Your task to perform on an android device: Show me productivity apps on the Play Store Image 0: 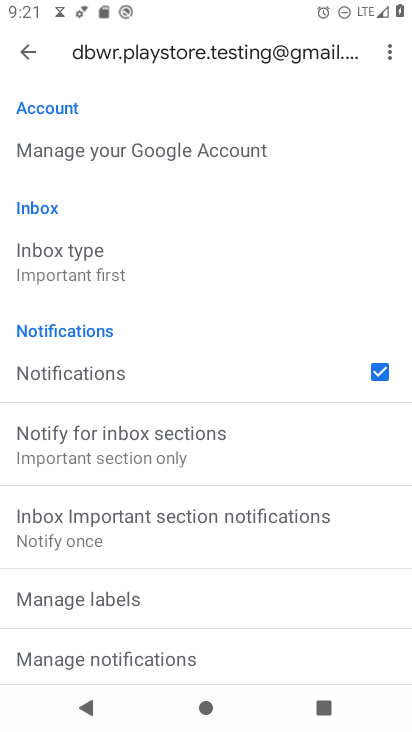
Step 0: press home button
Your task to perform on an android device: Show me productivity apps on the Play Store Image 1: 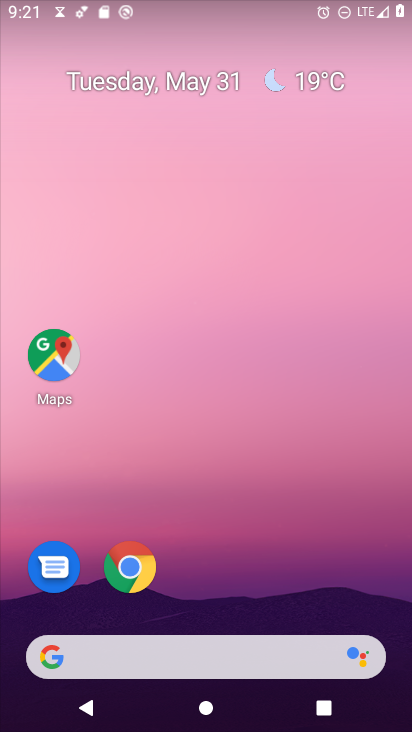
Step 1: drag from (173, 637) to (213, 186)
Your task to perform on an android device: Show me productivity apps on the Play Store Image 2: 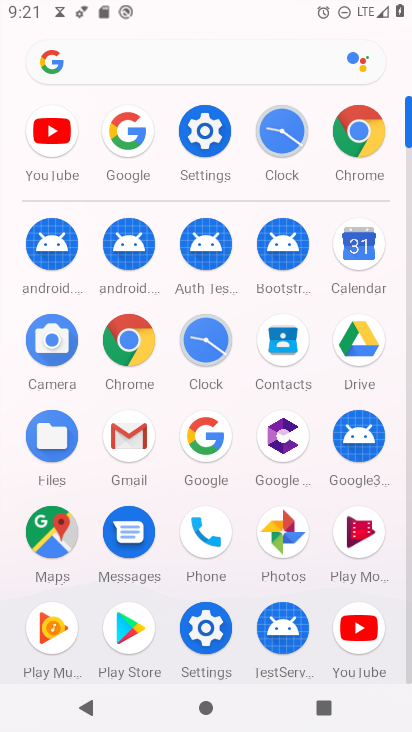
Step 2: click (117, 628)
Your task to perform on an android device: Show me productivity apps on the Play Store Image 3: 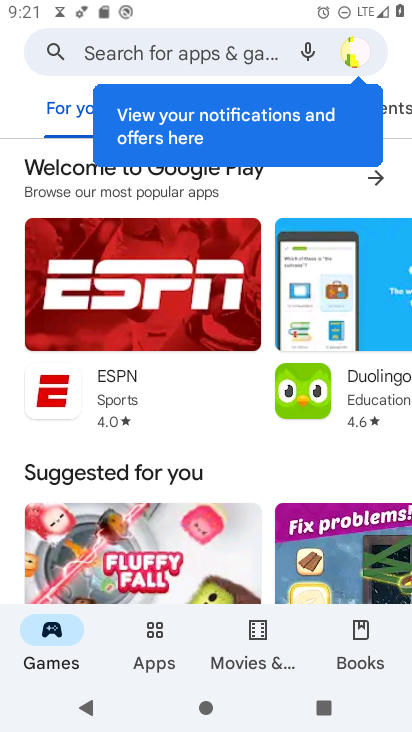
Step 3: click (162, 633)
Your task to perform on an android device: Show me productivity apps on the Play Store Image 4: 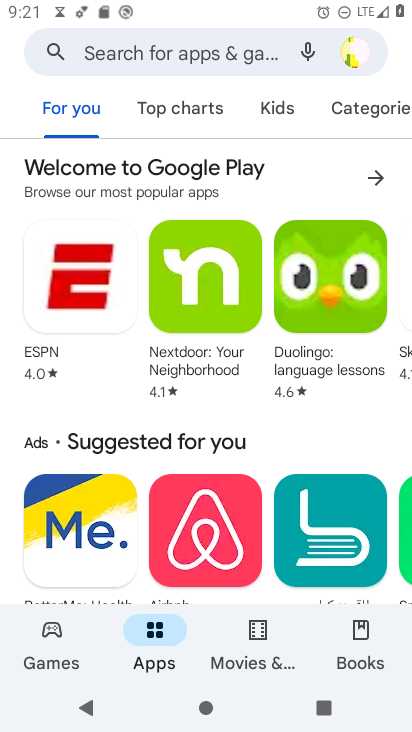
Step 4: task complete